Your task to perform on an android device: turn pop-ups on in chrome Image 0: 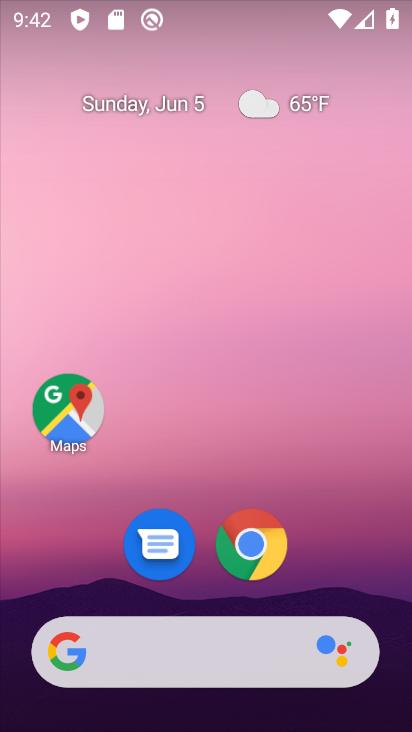
Step 0: click (249, 543)
Your task to perform on an android device: turn pop-ups on in chrome Image 1: 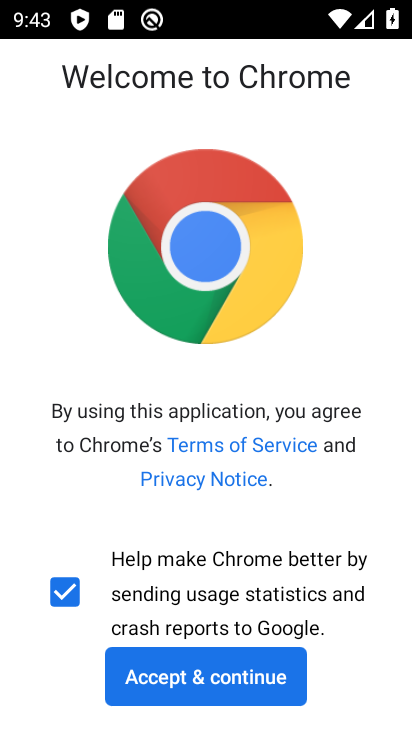
Step 1: click (164, 695)
Your task to perform on an android device: turn pop-ups on in chrome Image 2: 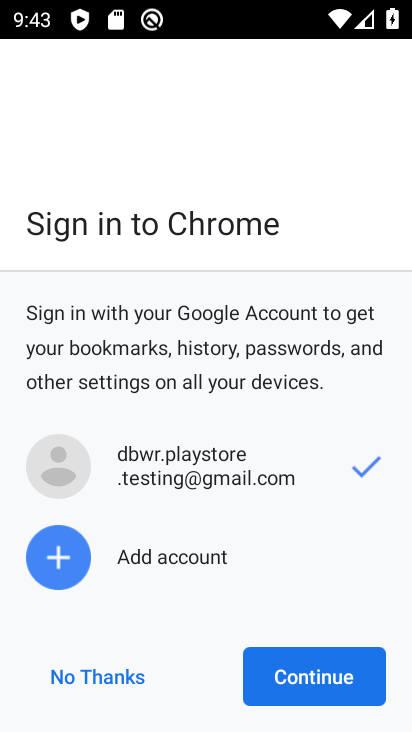
Step 2: click (347, 692)
Your task to perform on an android device: turn pop-ups on in chrome Image 3: 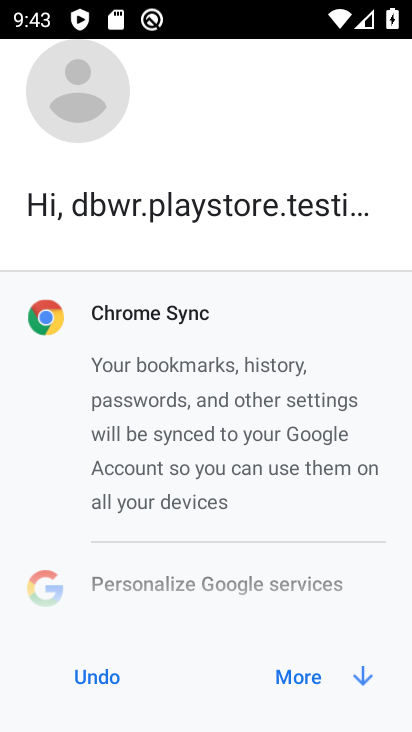
Step 3: task complete